Your task to perform on an android device: turn on sleep mode Image 0: 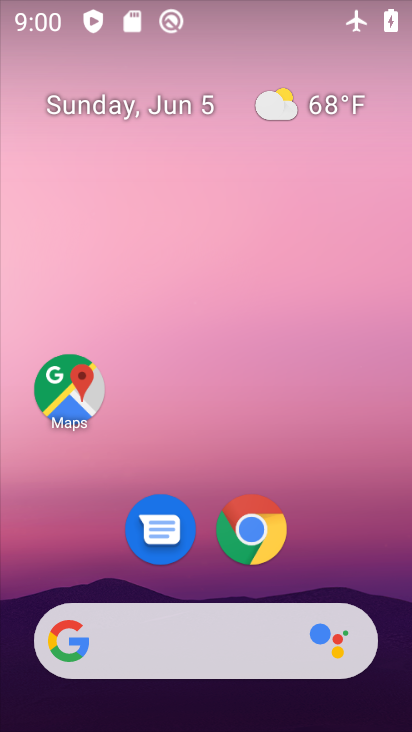
Step 0: drag from (236, 616) to (343, 0)
Your task to perform on an android device: turn on sleep mode Image 1: 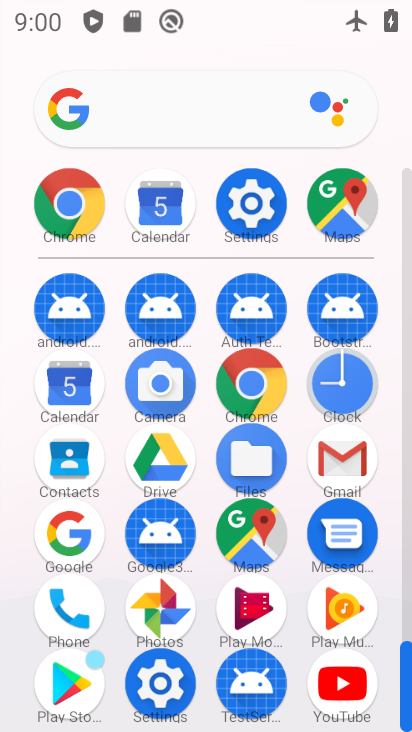
Step 1: click (259, 189)
Your task to perform on an android device: turn on sleep mode Image 2: 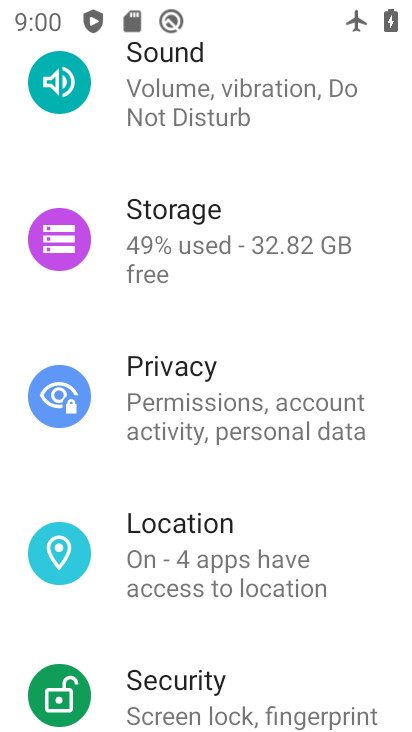
Step 2: drag from (287, 157) to (330, 621)
Your task to perform on an android device: turn on sleep mode Image 3: 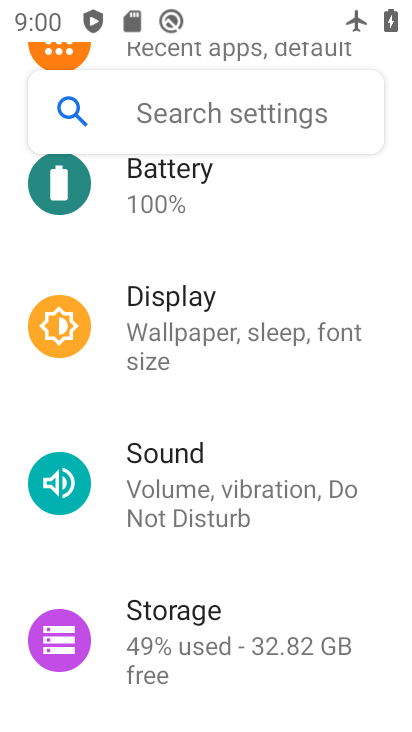
Step 3: drag from (298, 207) to (317, 729)
Your task to perform on an android device: turn on sleep mode Image 4: 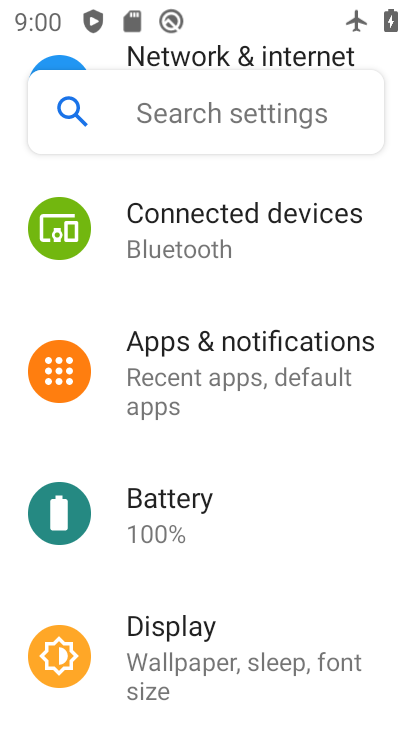
Step 4: click (231, 688)
Your task to perform on an android device: turn on sleep mode Image 5: 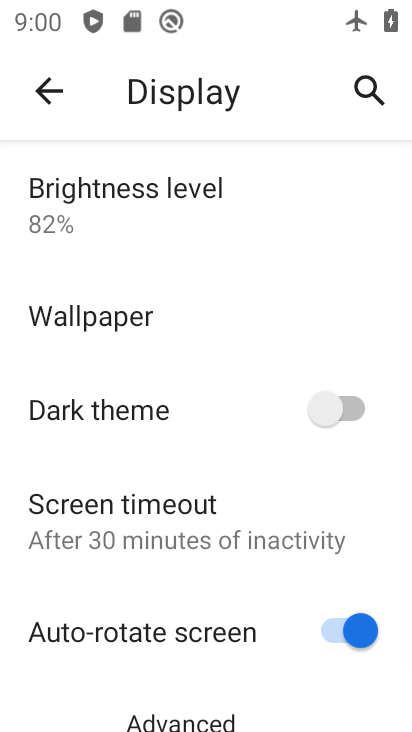
Step 5: task complete